Your task to perform on an android device: Go to Amazon Image 0: 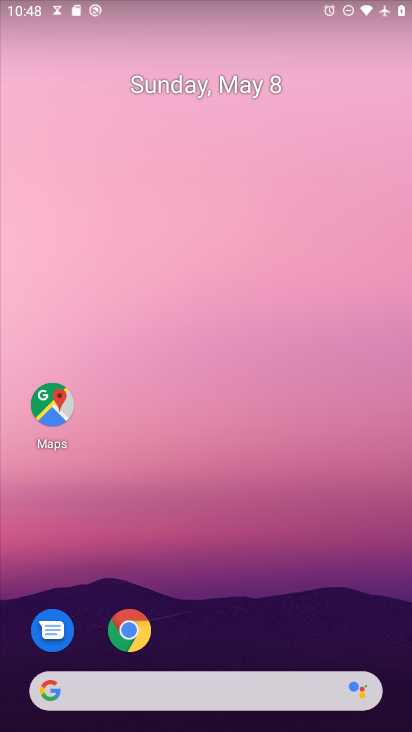
Step 0: drag from (164, 699) to (340, 189)
Your task to perform on an android device: Go to Amazon Image 1: 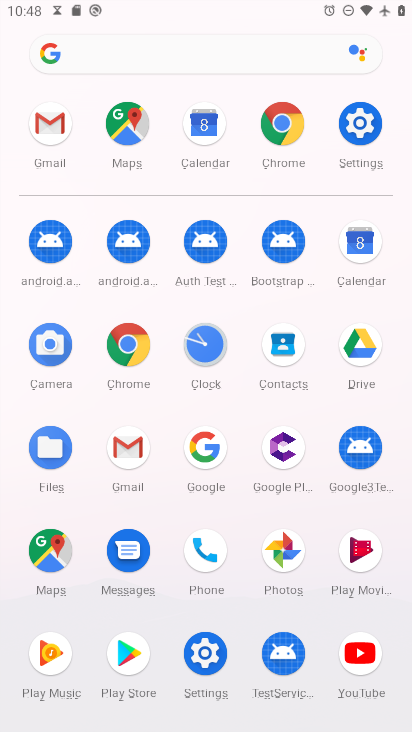
Step 1: click (274, 129)
Your task to perform on an android device: Go to Amazon Image 2: 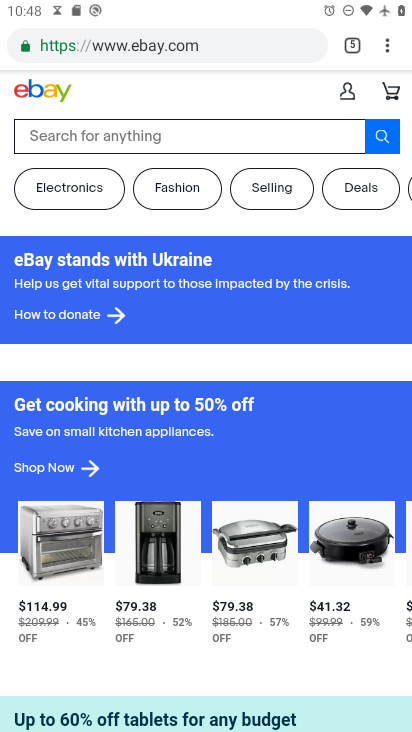
Step 2: drag from (385, 48) to (297, 95)
Your task to perform on an android device: Go to Amazon Image 3: 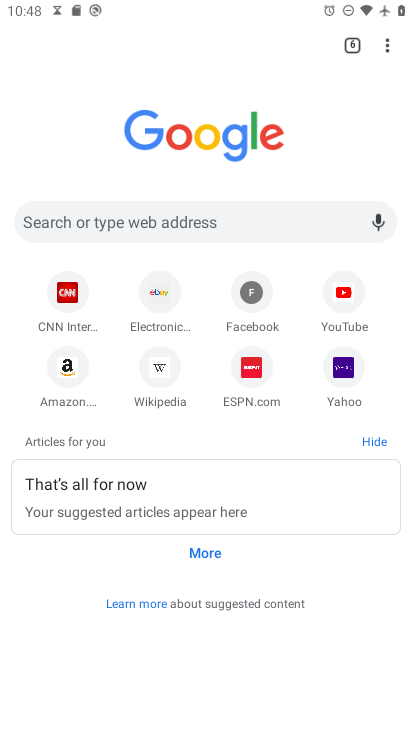
Step 3: click (67, 365)
Your task to perform on an android device: Go to Amazon Image 4: 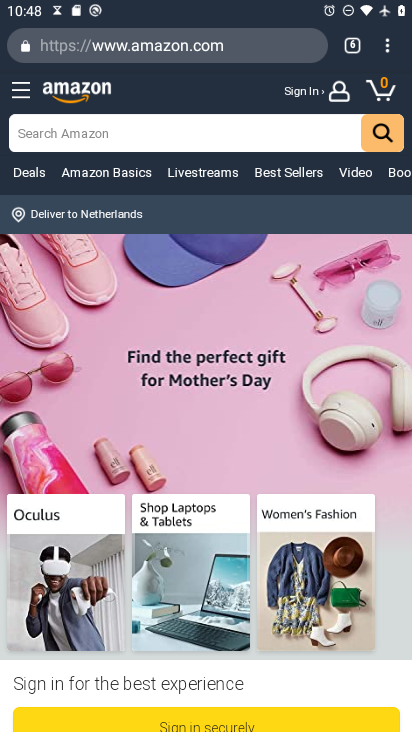
Step 4: task complete